Your task to perform on an android device: turn on the 24-hour format for clock Image 0: 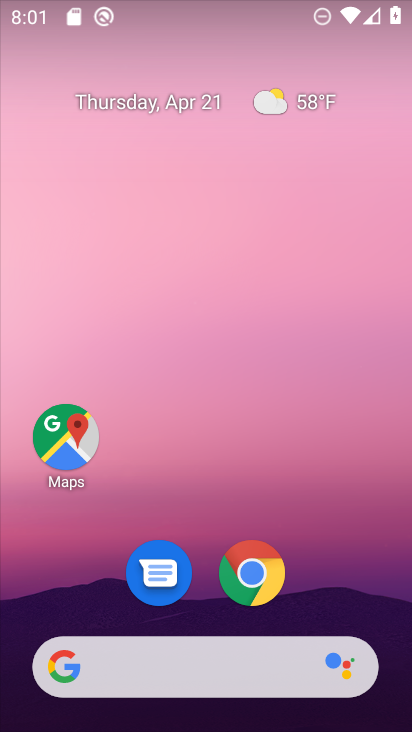
Step 0: drag from (242, 630) to (288, 106)
Your task to perform on an android device: turn on the 24-hour format for clock Image 1: 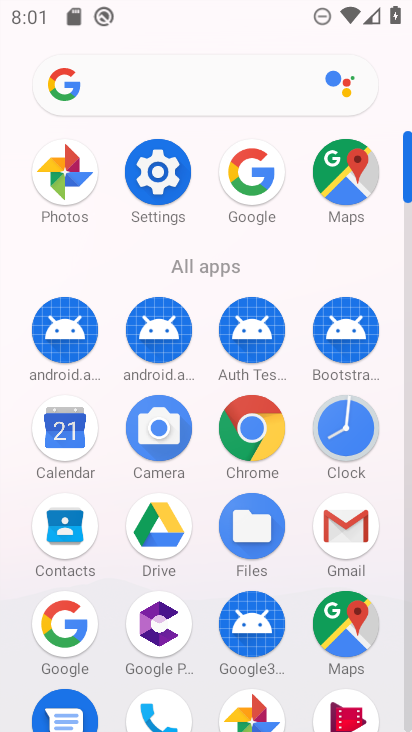
Step 1: click (345, 442)
Your task to perform on an android device: turn on the 24-hour format for clock Image 2: 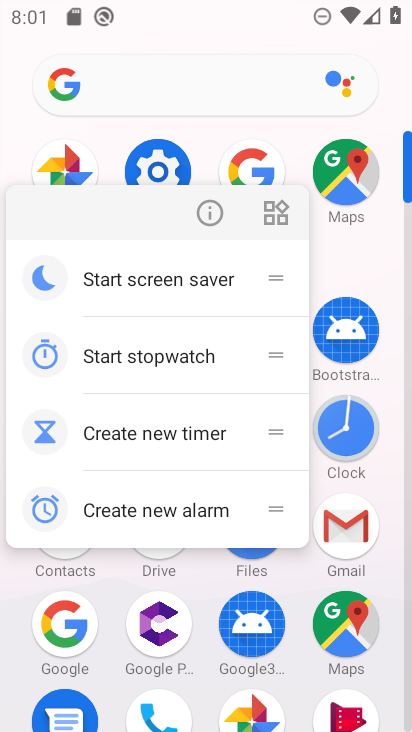
Step 2: click (346, 427)
Your task to perform on an android device: turn on the 24-hour format for clock Image 3: 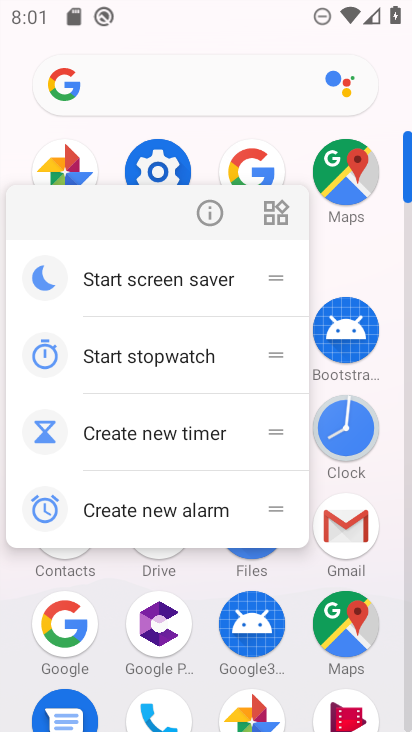
Step 3: click (353, 431)
Your task to perform on an android device: turn on the 24-hour format for clock Image 4: 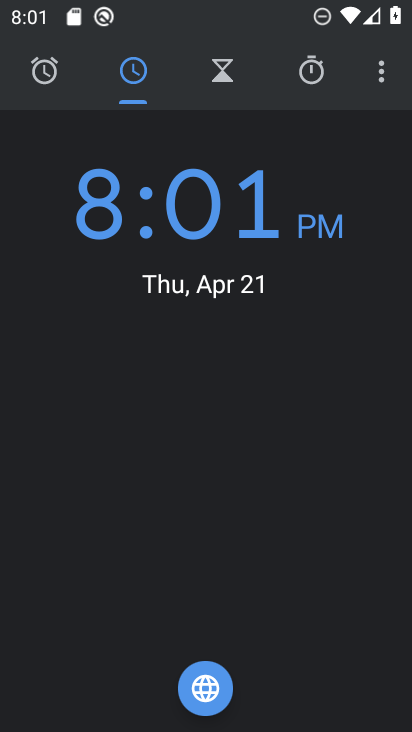
Step 4: click (381, 66)
Your task to perform on an android device: turn on the 24-hour format for clock Image 5: 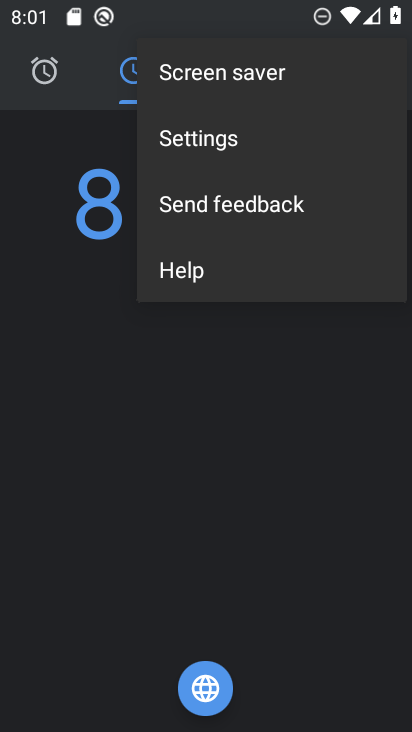
Step 5: click (230, 137)
Your task to perform on an android device: turn on the 24-hour format for clock Image 6: 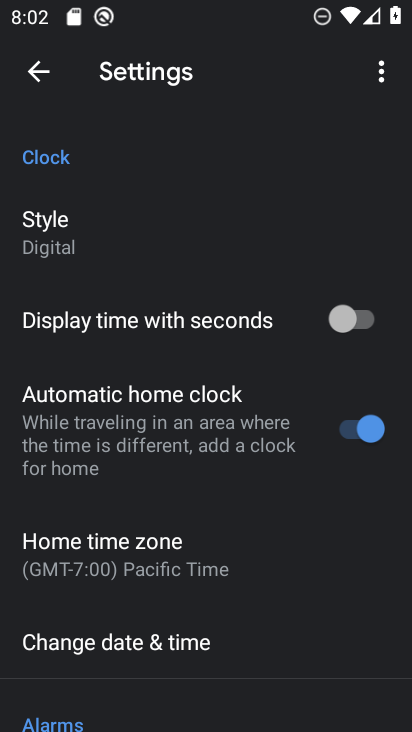
Step 6: click (134, 642)
Your task to perform on an android device: turn on the 24-hour format for clock Image 7: 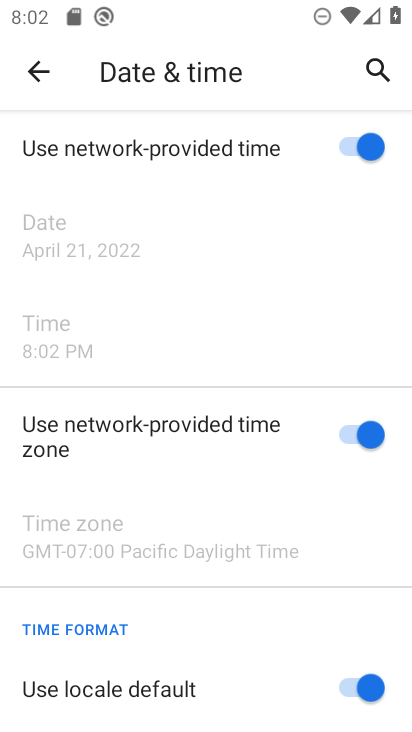
Step 7: drag from (251, 706) to (290, 316)
Your task to perform on an android device: turn on the 24-hour format for clock Image 8: 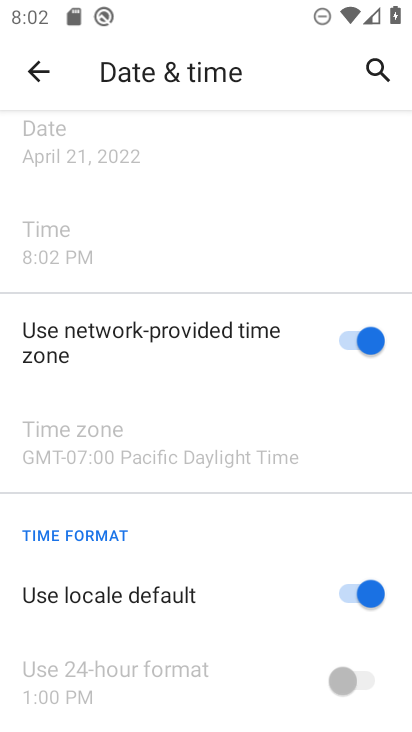
Step 8: click (370, 679)
Your task to perform on an android device: turn on the 24-hour format for clock Image 9: 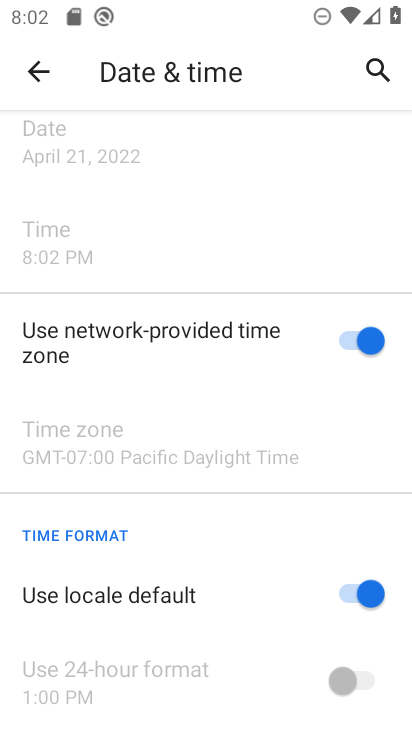
Step 9: click (360, 679)
Your task to perform on an android device: turn on the 24-hour format for clock Image 10: 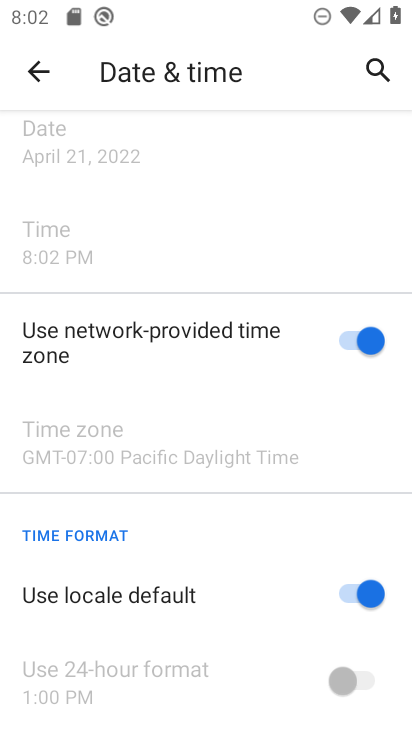
Step 10: click (348, 587)
Your task to perform on an android device: turn on the 24-hour format for clock Image 11: 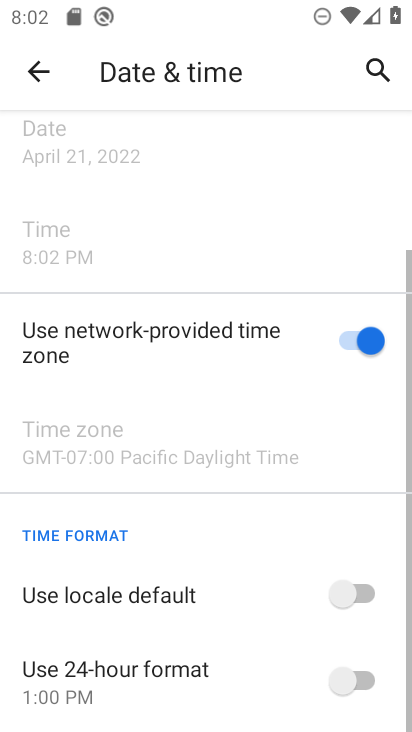
Step 11: click (368, 680)
Your task to perform on an android device: turn on the 24-hour format for clock Image 12: 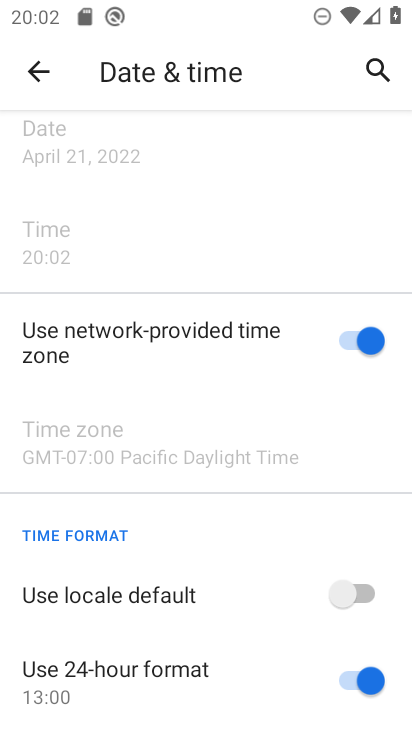
Step 12: task complete